Your task to perform on an android device: make emails show in primary in the gmail app Image 0: 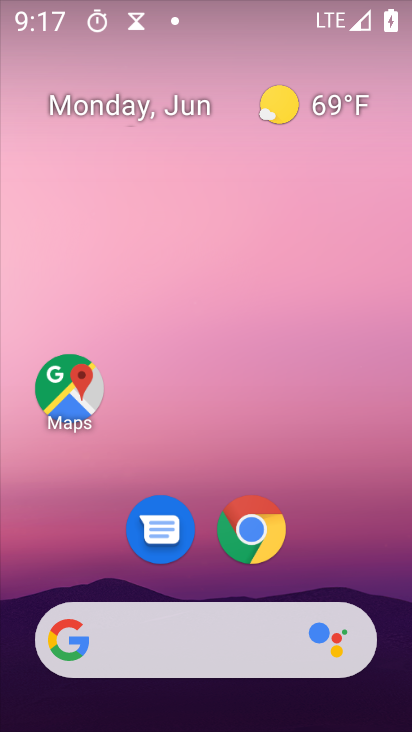
Step 0: drag from (339, 519) to (269, 39)
Your task to perform on an android device: make emails show in primary in the gmail app Image 1: 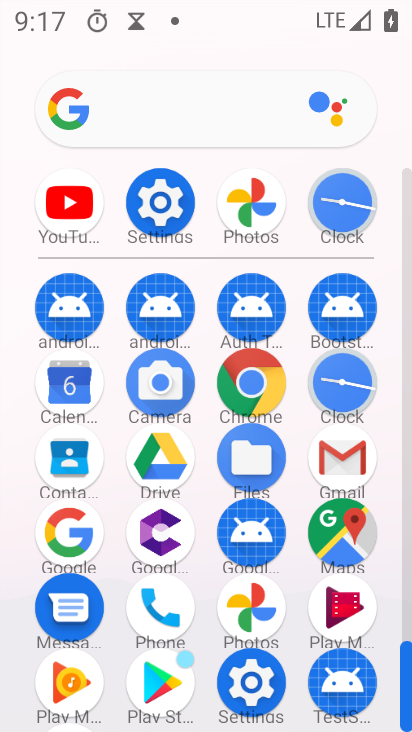
Step 1: click (356, 457)
Your task to perform on an android device: make emails show in primary in the gmail app Image 2: 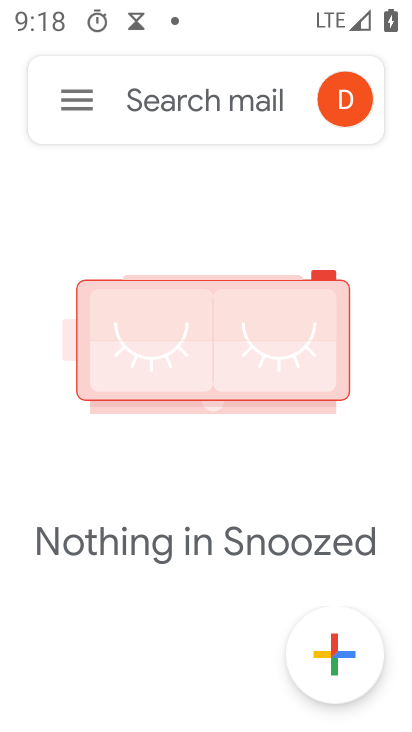
Step 2: click (80, 100)
Your task to perform on an android device: make emails show in primary in the gmail app Image 3: 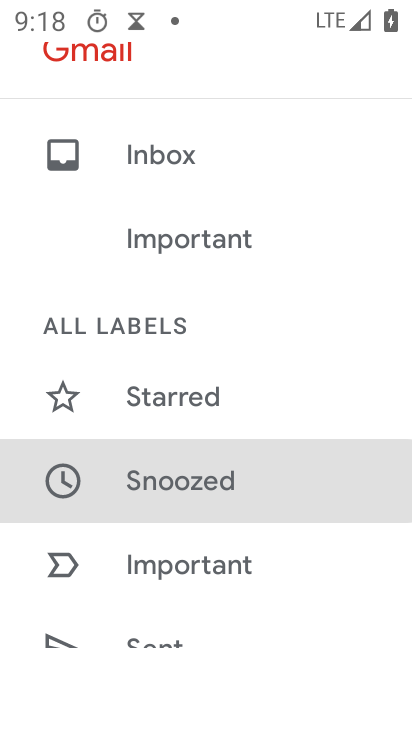
Step 3: drag from (242, 568) to (263, 81)
Your task to perform on an android device: make emails show in primary in the gmail app Image 4: 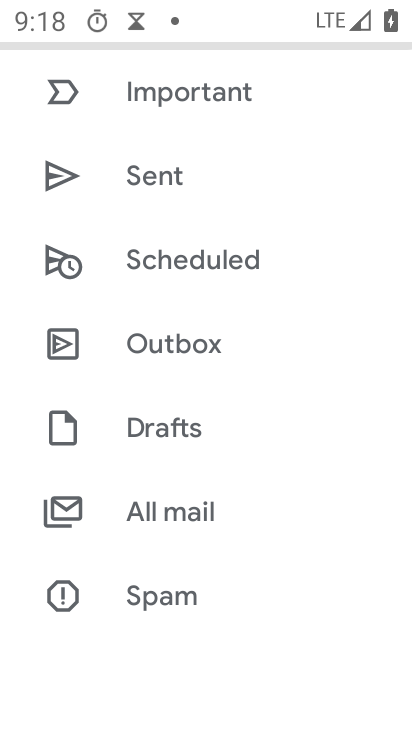
Step 4: drag from (256, 531) to (219, 38)
Your task to perform on an android device: make emails show in primary in the gmail app Image 5: 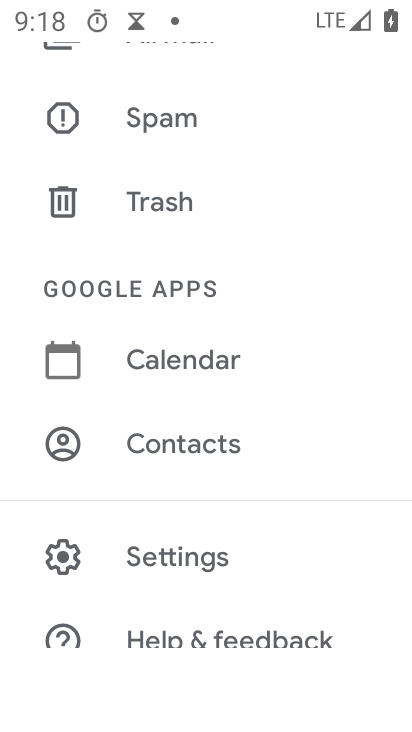
Step 5: click (229, 540)
Your task to perform on an android device: make emails show in primary in the gmail app Image 6: 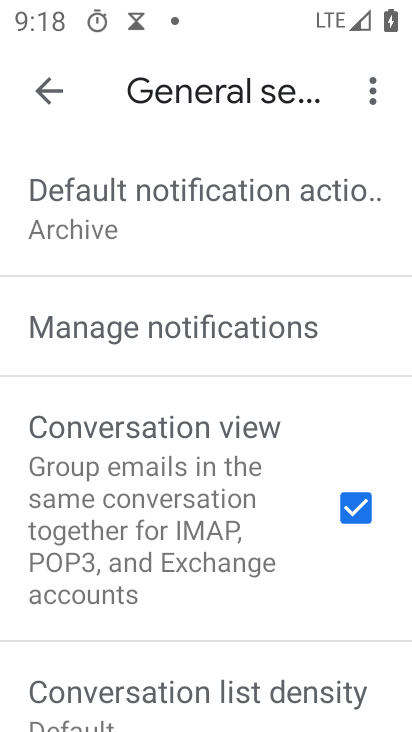
Step 6: drag from (232, 589) to (229, 112)
Your task to perform on an android device: make emails show in primary in the gmail app Image 7: 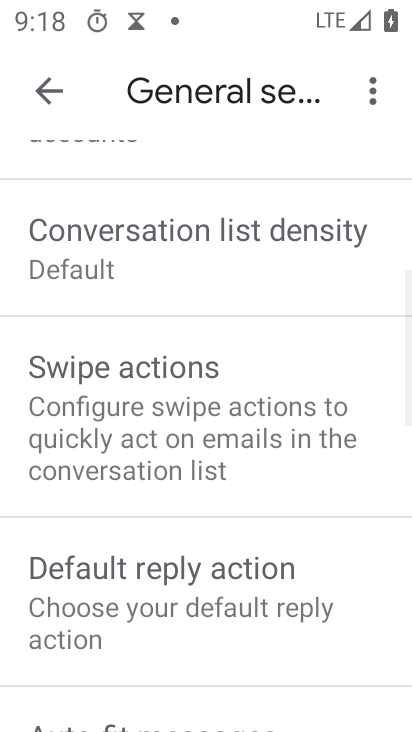
Step 7: drag from (245, 605) to (220, 201)
Your task to perform on an android device: make emails show in primary in the gmail app Image 8: 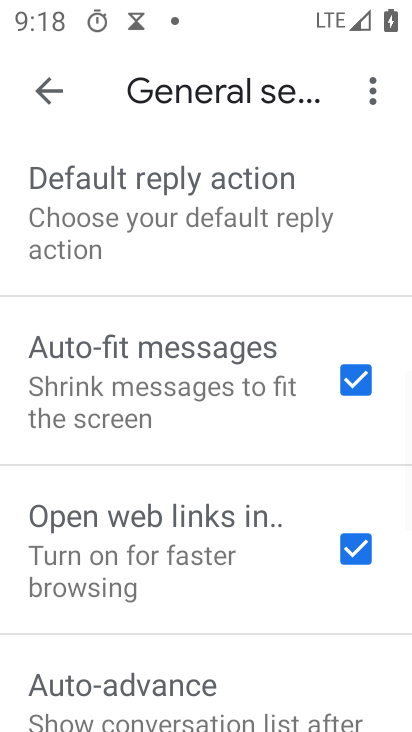
Step 8: drag from (217, 614) to (186, 219)
Your task to perform on an android device: make emails show in primary in the gmail app Image 9: 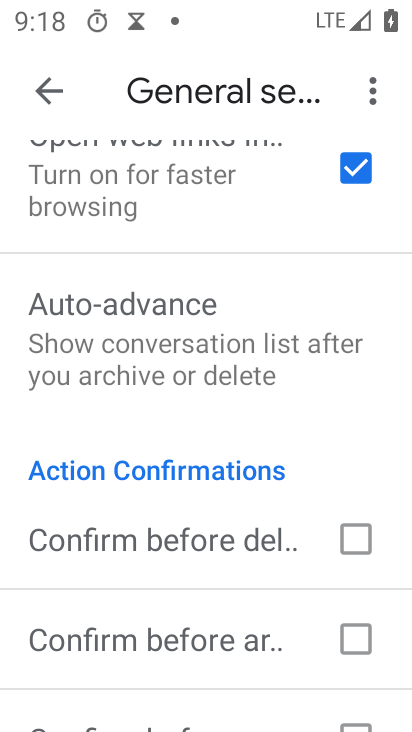
Step 9: drag from (217, 614) to (201, 232)
Your task to perform on an android device: make emails show in primary in the gmail app Image 10: 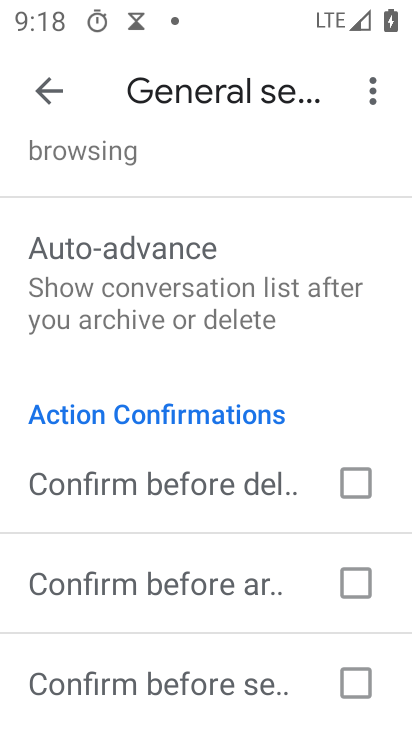
Step 10: drag from (153, 257) to (227, 721)
Your task to perform on an android device: make emails show in primary in the gmail app Image 11: 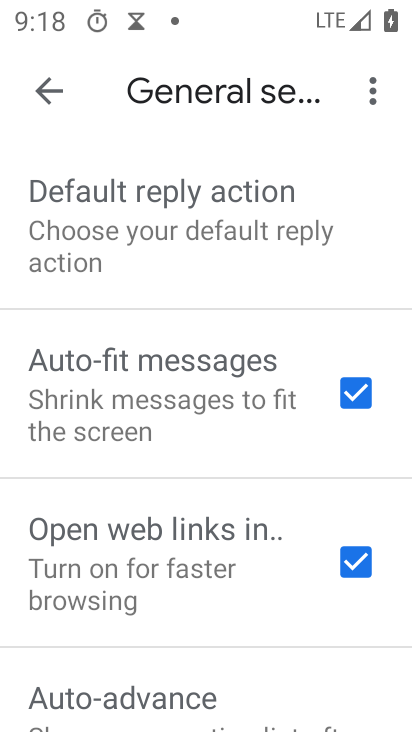
Step 11: drag from (111, 232) to (191, 598)
Your task to perform on an android device: make emails show in primary in the gmail app Image 12: 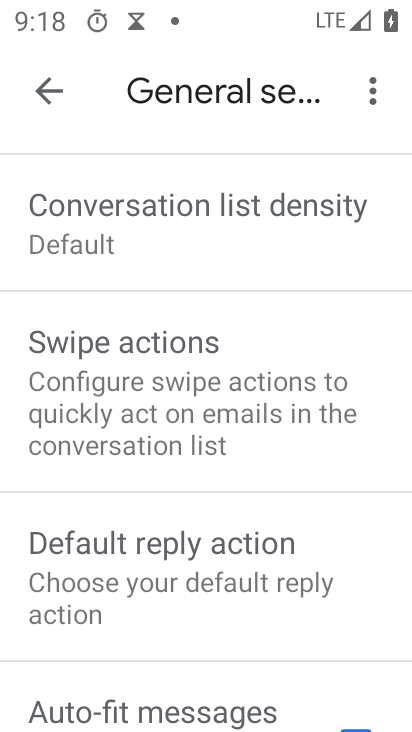
Step 12: drag from (182, 237) to (270, 713)
Your task to perform on an android device: make emails show in primary in the gmail app Image 13: 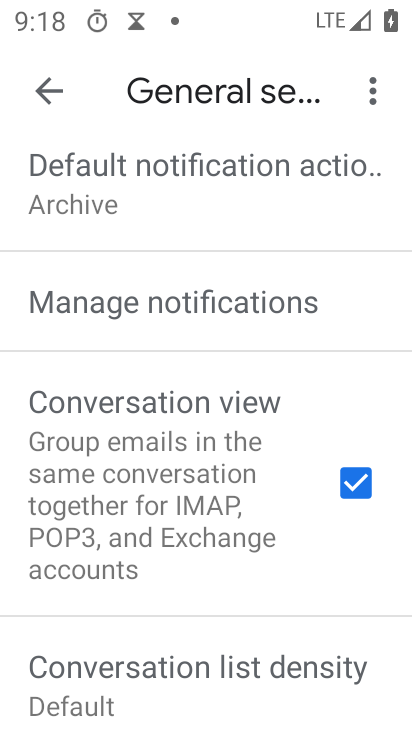
Step 13: drag from (173, 226) to (213, 690)
Your task to perform on an android device: make emails show in primary in the gmail app Image 14: 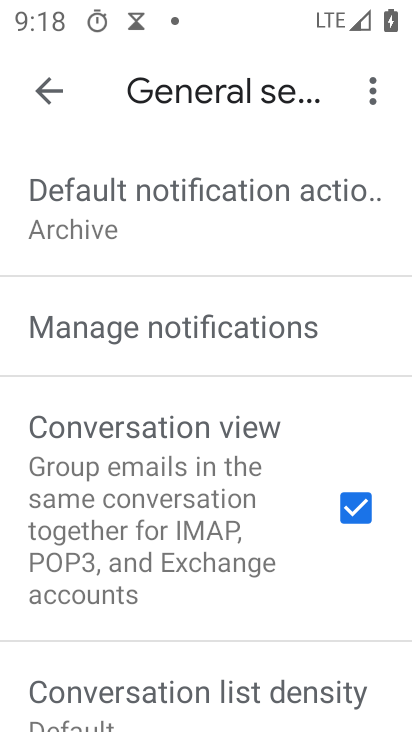
Step 14: drag from (195, 664) to (188, 307)
Your task to perform on an android device: make emails show in primary in the gmail app Image 15: 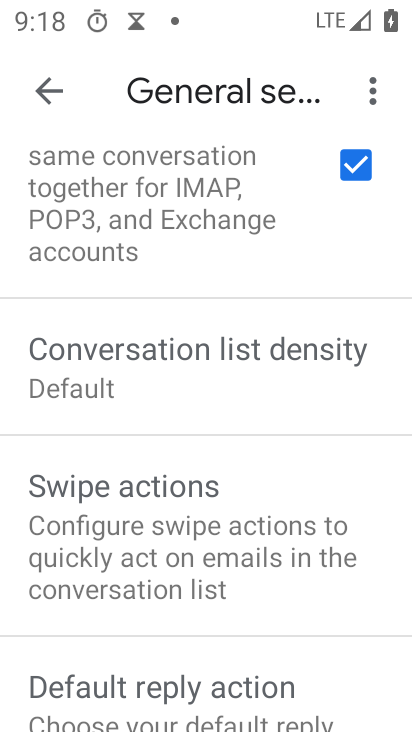
Step 15: click (370, 83)
Your task to perform on an android device: make emails show in primary in the gmail app Image 16: 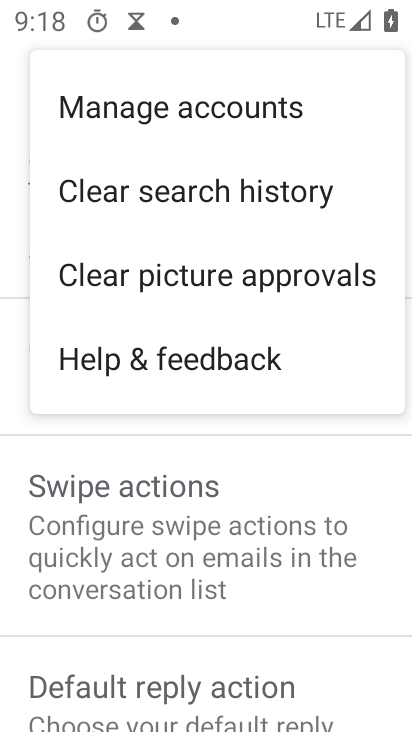
Step 16: click (234, 522)
Your task to perform on an android device: make emails show in primary in the gmail app Image 17: 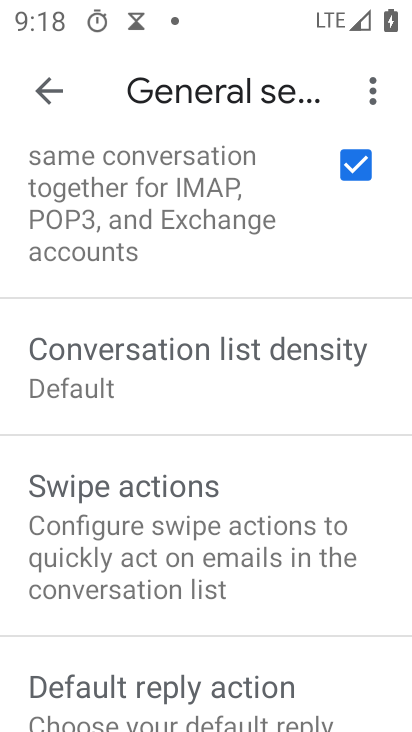
Step 17: click (234, 600)
Your task to perform on an android device: make emails show in primary in the gmail app Image 18: 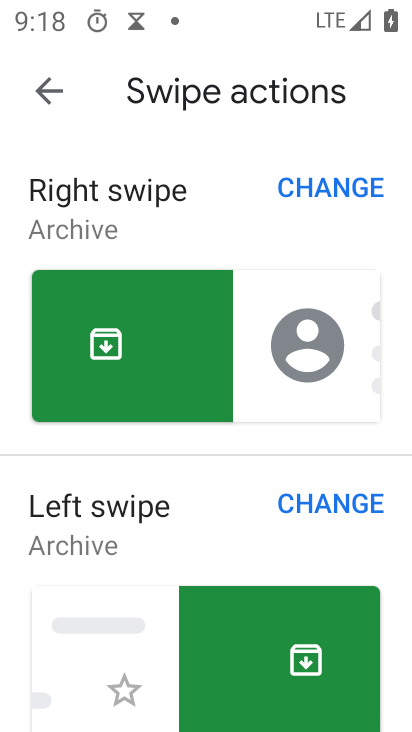
Step 18: press back button
Your task to perform on an android device: make emails show in primary in the gmail app Image 19: 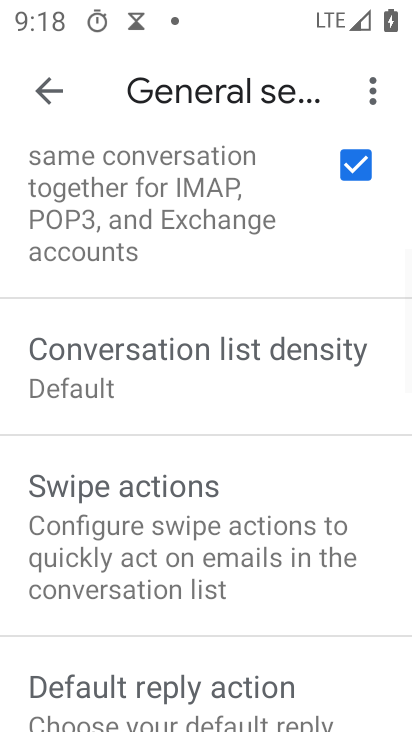
Step 19: click (292, 689)
Your task to perform on an android device: make emails show in primary in the gmail app Image 20: 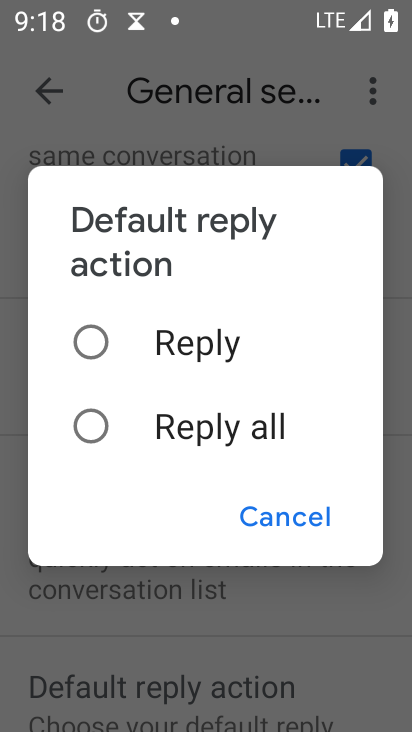
Step 20: click (286, 507)
Your task to perform on an android device: make emails show in primary in the gmail app Image 21: 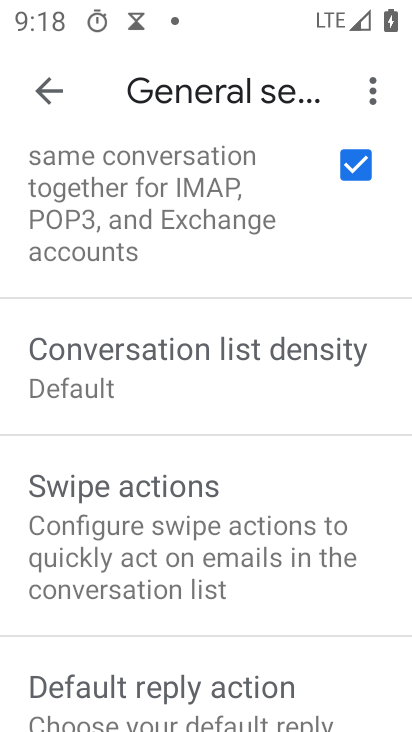
Step 21: task complete